Your task to perform on an android device: change notification settings in the gmail app Image 0: 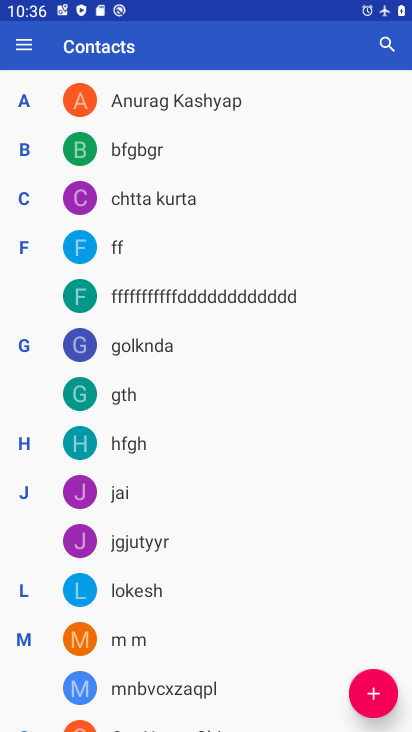
Step 0: press home button
Your task to perform on an android device: change notification settings in the gmail app Image 1: 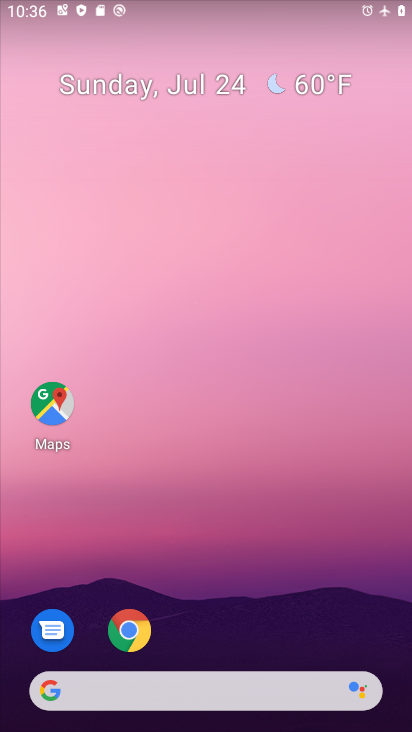
Step 1: drag from (297, 12) to (222, 4)
Your task to perform on an android device: change notification settings in the gmail app Image 2: 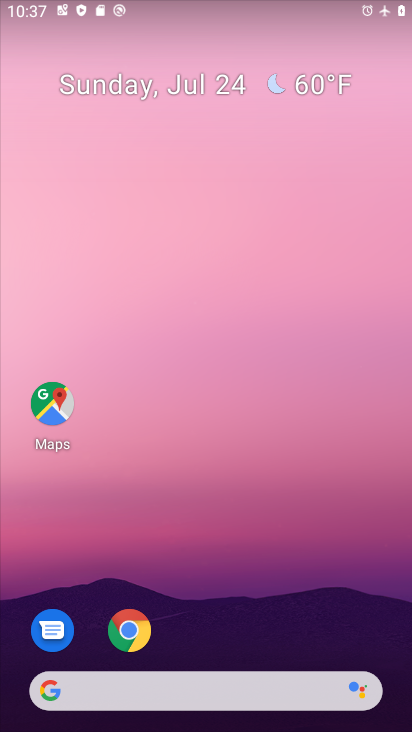
Step 2: click (142, 625)
Your task to perform on an android device: change notification settings in the gmail app Image 3: 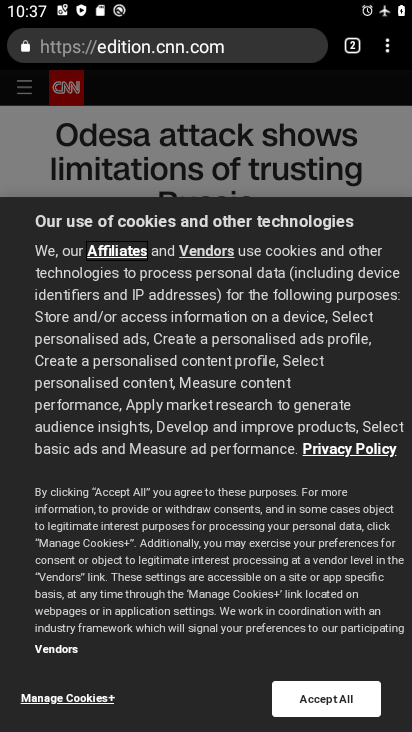
Step 3: click (383, 46)
Your task to perform on an android device: change notification settings in the gmail app Image 4: 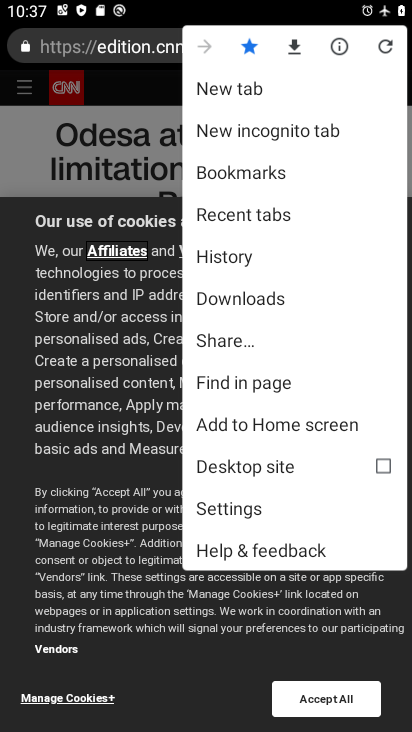
Step 4: press home button
Your task to perform on an android device: change notification settings in the gmail app Image 5: 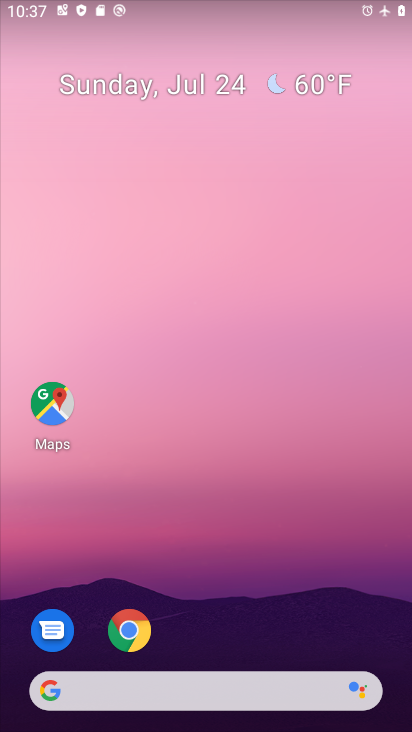
Step 5: drag from (218, 527) to (103, 3)
Your task to perform on an android device: change notification settings in the gmail app Image 6: 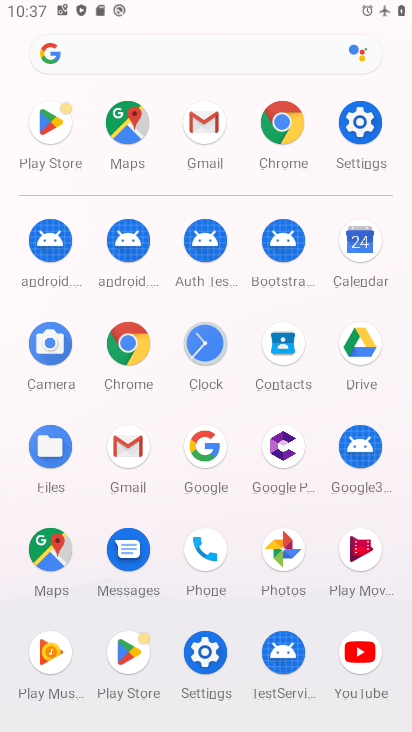
Step 6: click (133, 470)
Your task to perform on an android device: change notification settings in the gmail app Image 7: 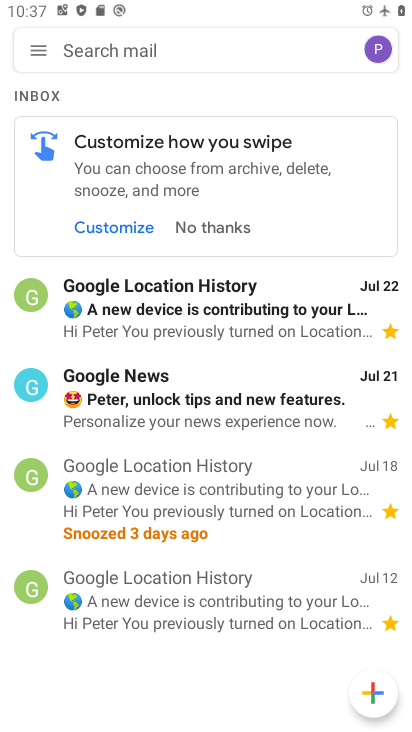
Step 7: click (37, 55)
Your task to perform on an android device: change notification settings in the gmail app Image 8: 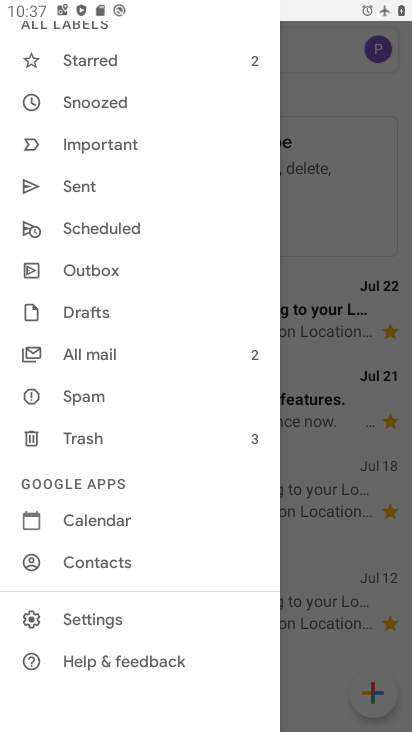
Step 8: click (90, 624)
Your task to perform on an android device: change notification settings in the gmail app Image 9: 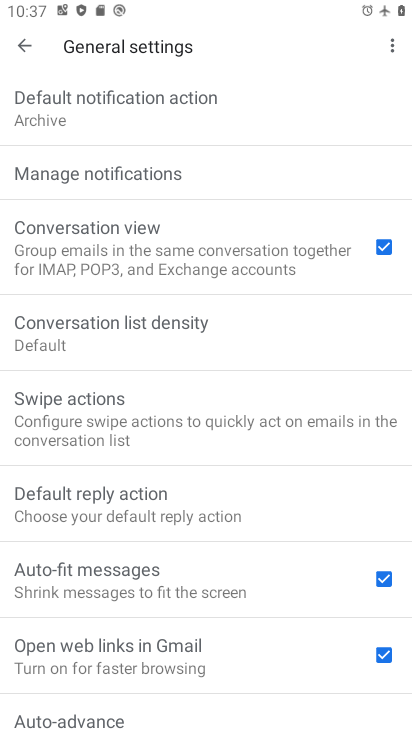
Step 9: click (132, 169)
Your task to perform on an android device: change notification settings in the gmail app Image 10: 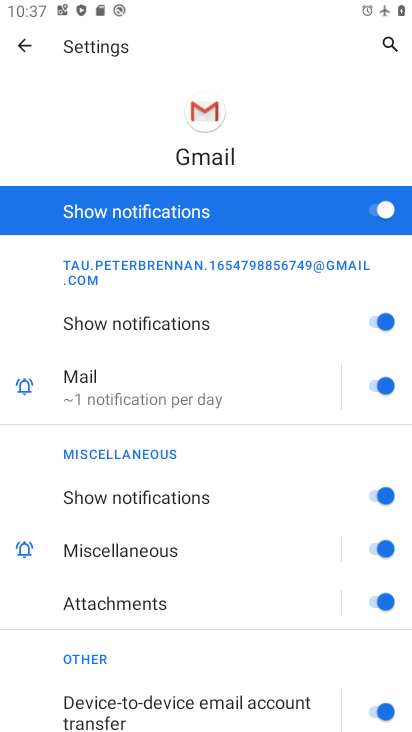
Step 10: click (340, 201)
Your task to perform on an android device: change notification settings in the gmail app Image 11: 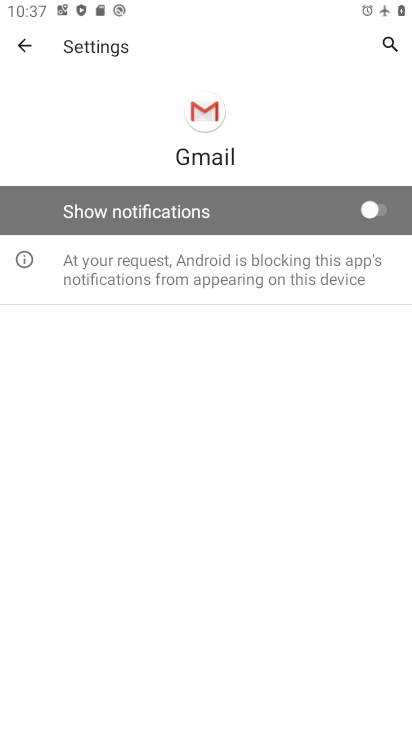
Step 11: task complete